Your task to perform on an android device: Open my contact list Image 0: 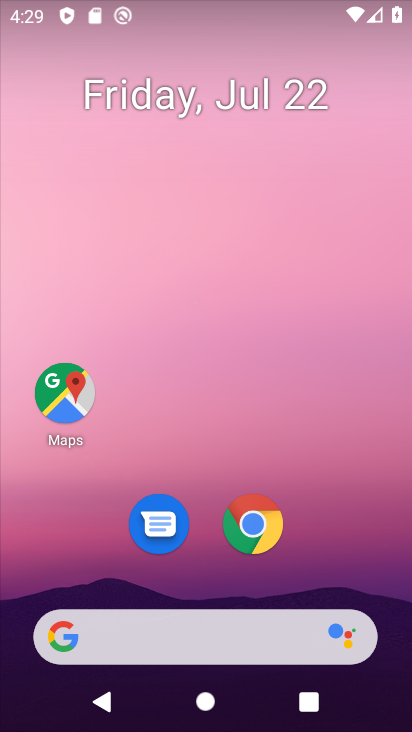
Step 0: drag from (369, 546) to (359, 74)
Your task to perform on an android device: Open my contact list Image 1: 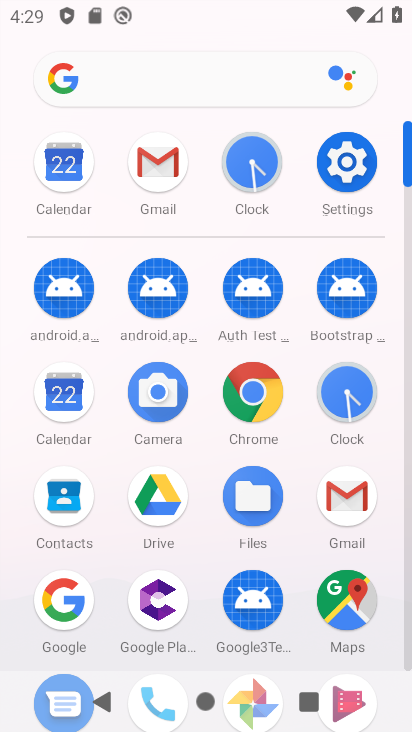
Step 1: click (53, 492)
Your task to perform on an android device: Open my contact list Image 2: 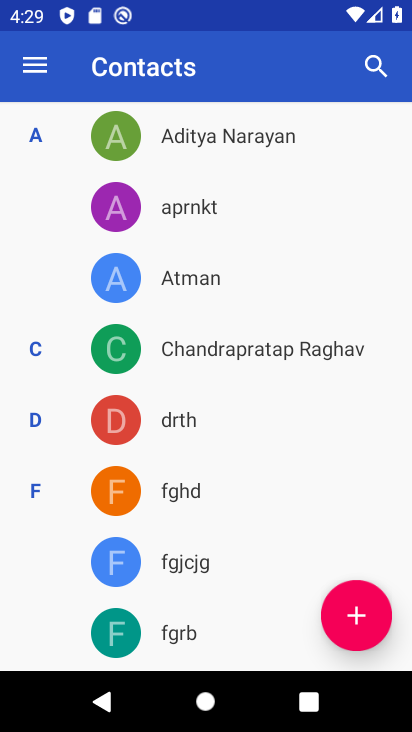
Step 2: task complete